Your task to perform on an android device: turn on priority inbox in the gmail app Image 0: 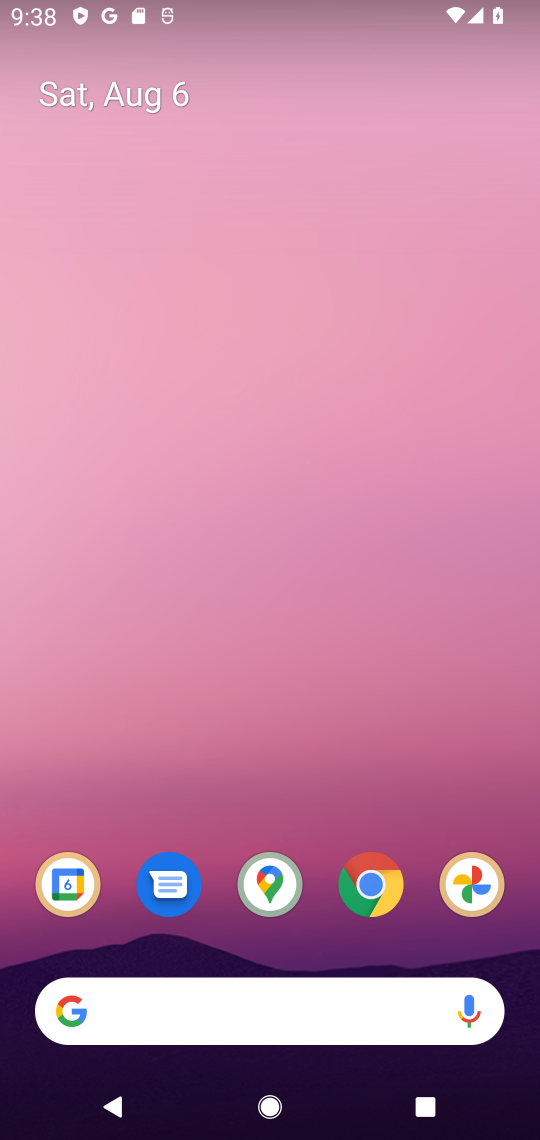
Step 0: drag from (420, 909) to (390, 41)
Your task to perform on an android device: turn on priority inbox in the gmail app Image 1: 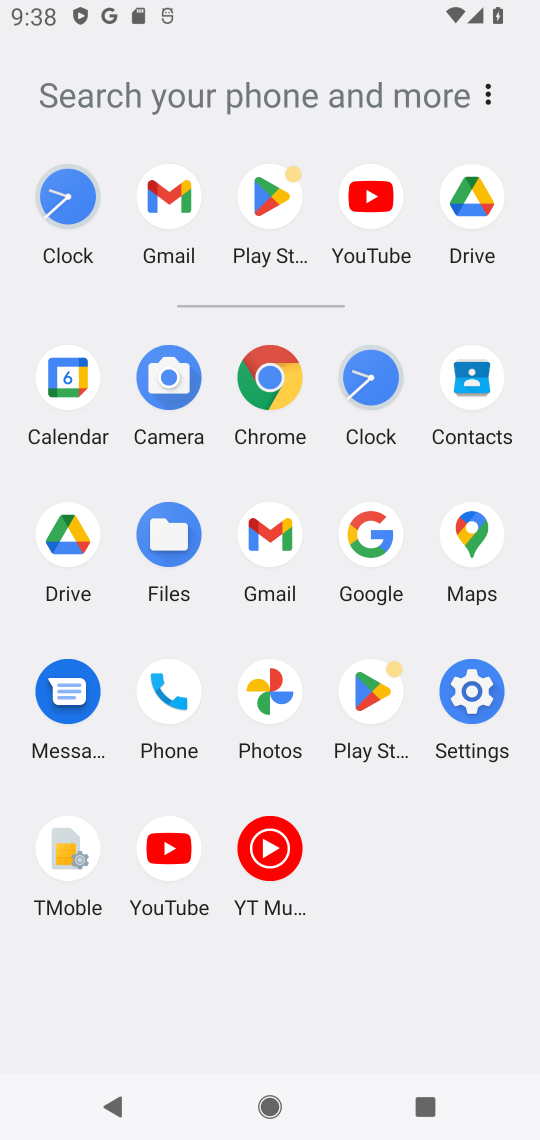
Step 1: click (268, 534)
Your task to perform on an android device: turn on priority inbox in the gmail app Image 2: 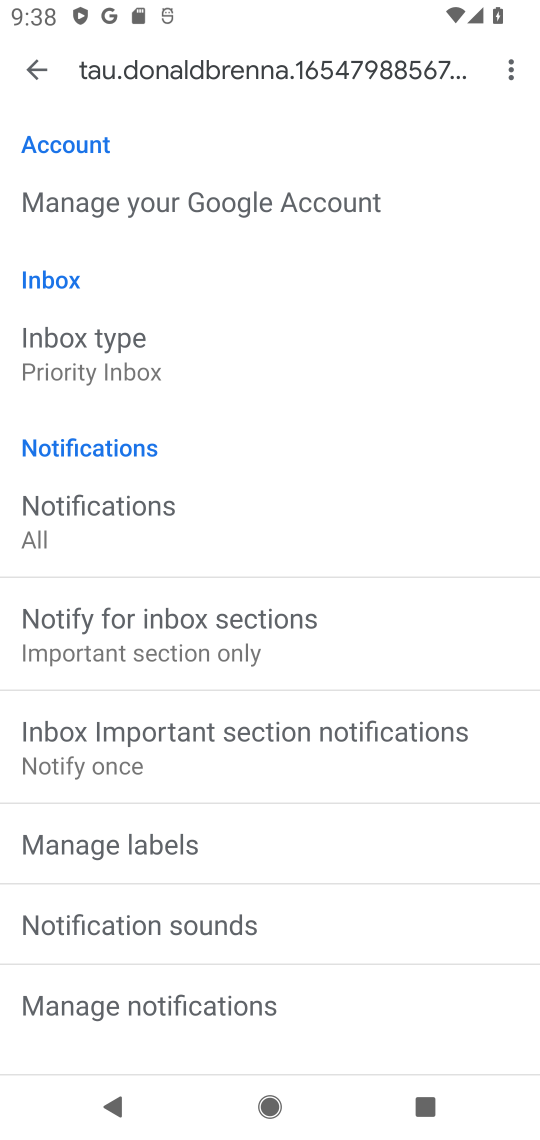
Step 2: click (68, 339)
Your task to perform on an android device: turn on priority inbox in the gmail app Image 3: 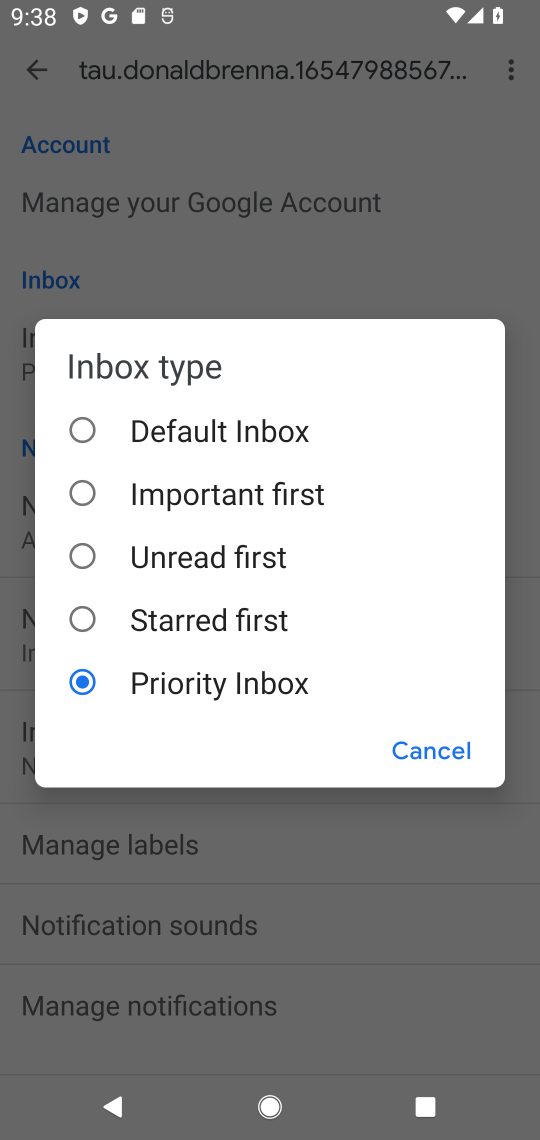
Step 3: task complete